Your task to perform on an android device: turn off wifi Image 0: 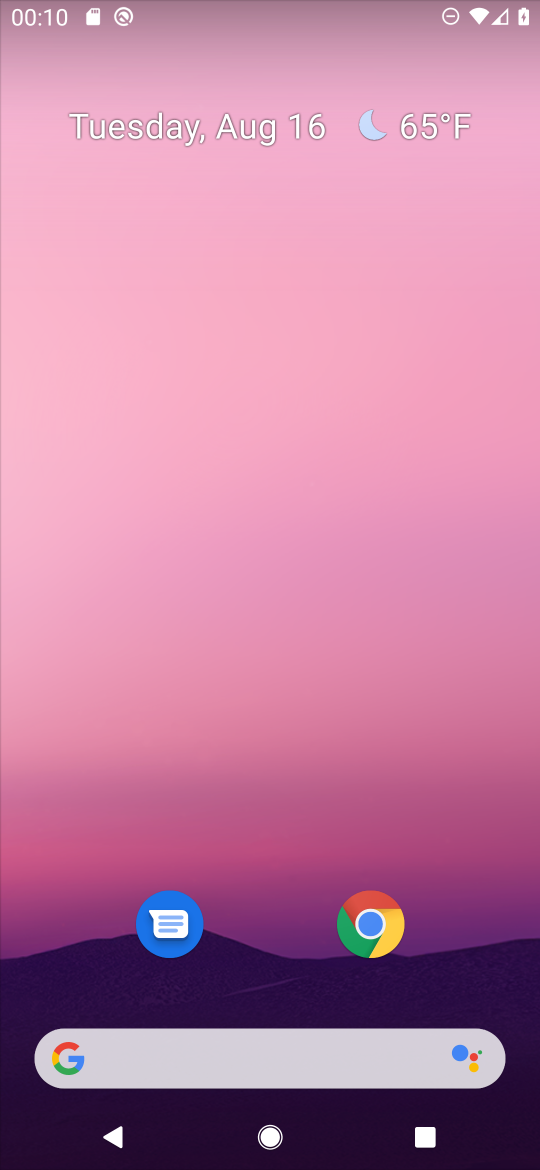
Step 0: drag from (393, 9) to (335, 993)
Your task to perform on an android device: turn off wifi Image 1: 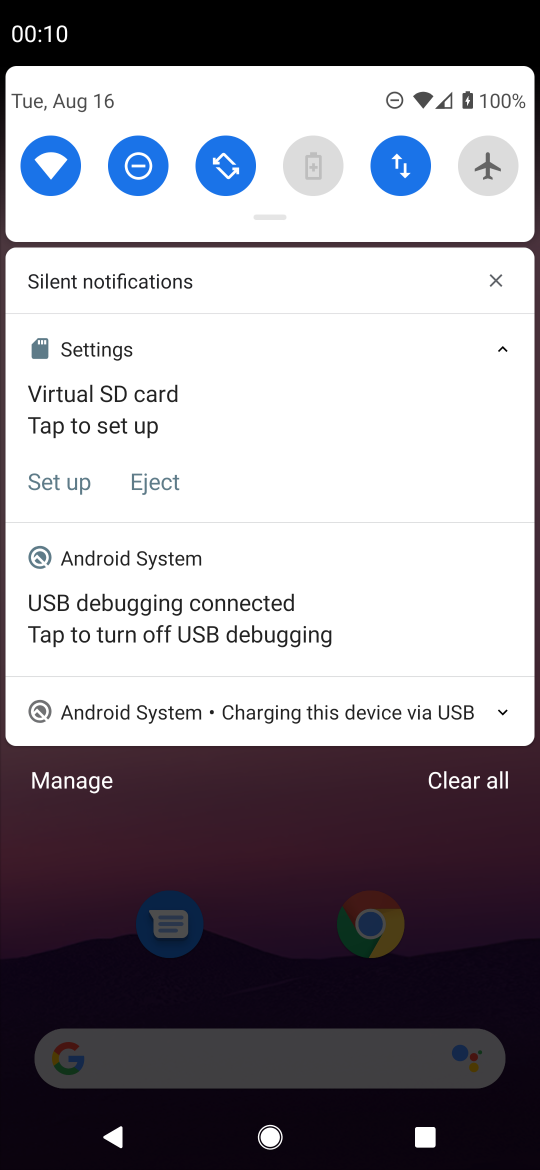
Step 1: click (61, 186)
Your task to perform on an android device: turn off wifi Image 2: 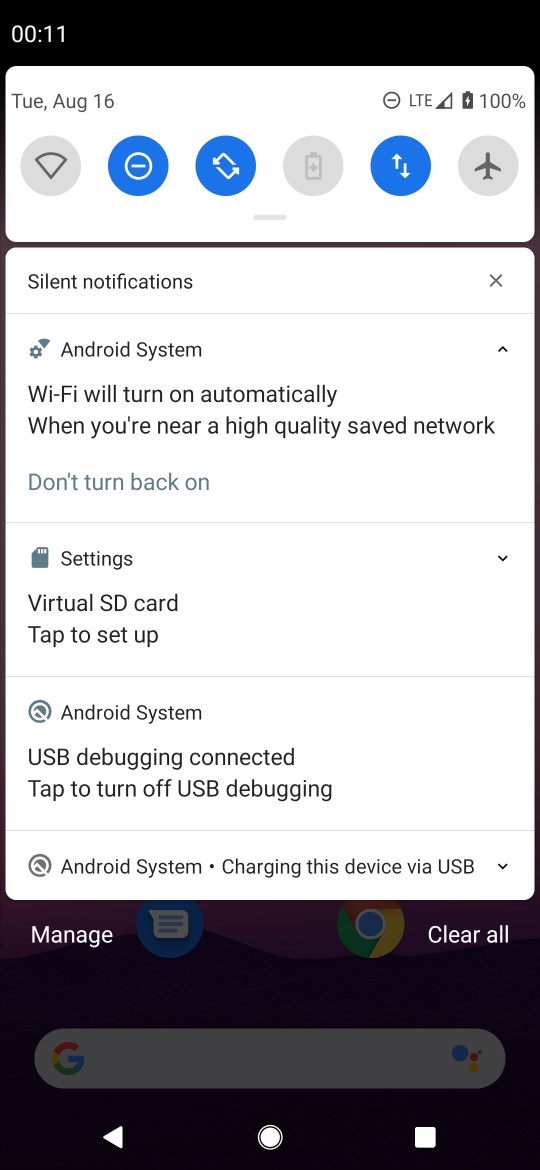
Step 2: task complete